Your task to perform on an android device: Go to Yahoo.com Image 0: 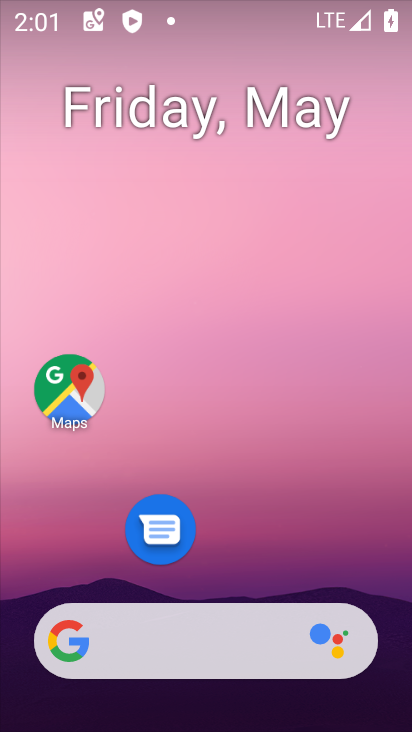
Step 0: click (210, 341)
Your task to perform on an android device: Go to Yahoo.com Image 1: 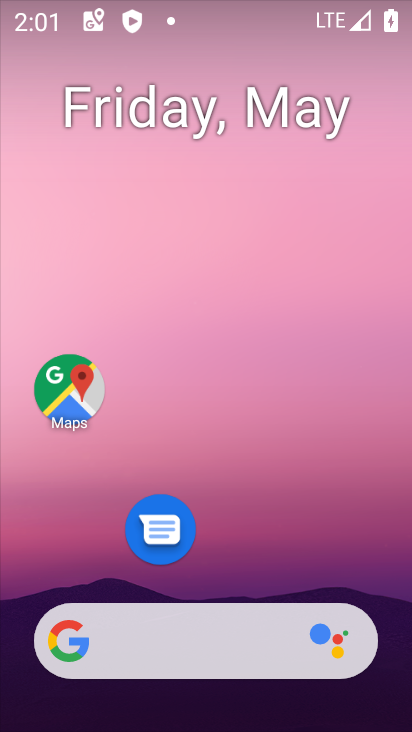
Step 1: drag from (225, 560) to (214, 249)
Your task to perform on an android device: Go to Yahoo.com Image 2: 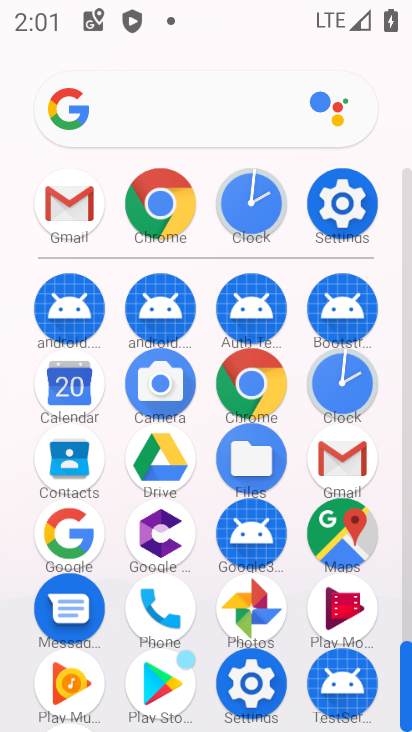
Step 2: drag from (212, 676) to (203, 394)
Your task to perform on an android device: Go to Yahoo.com Image 3: 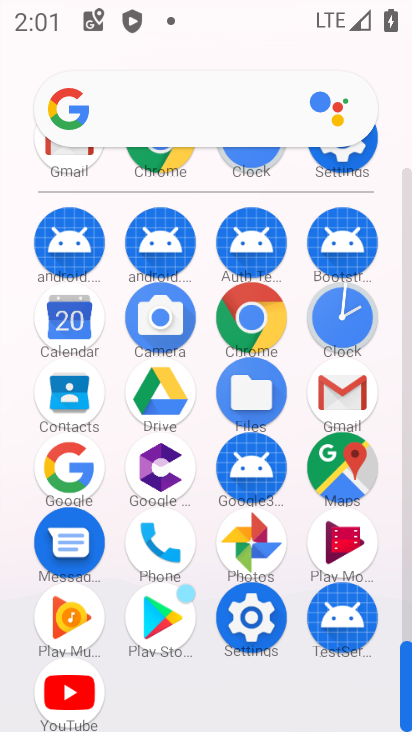
Step 3: click (167, 114)
Your task to perform on an android device: Go to Yahoo.com Image 4: 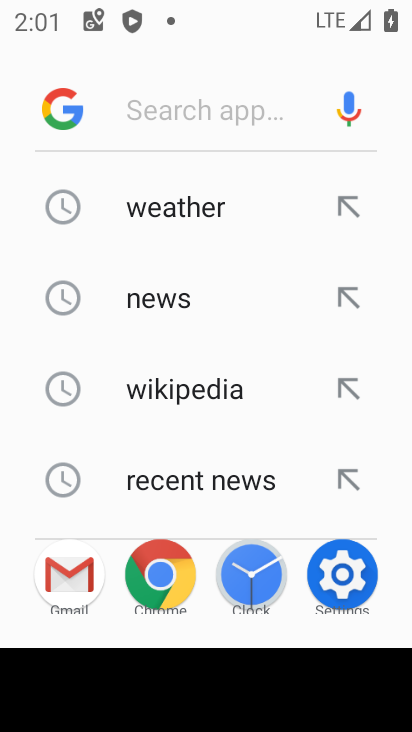
Step 4: type "yahoo"
Your task to perform on an android device: Go to Yahoo.com Image 5: 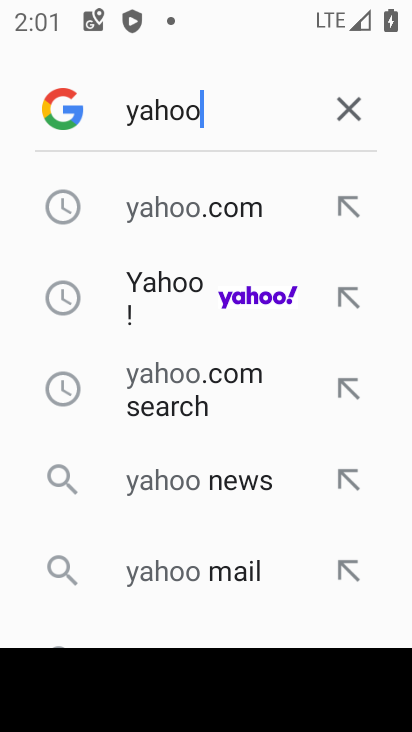
Step 5: click (194, 184)
Your task to perform on an android device: Go to Yahoo.com Image 6: 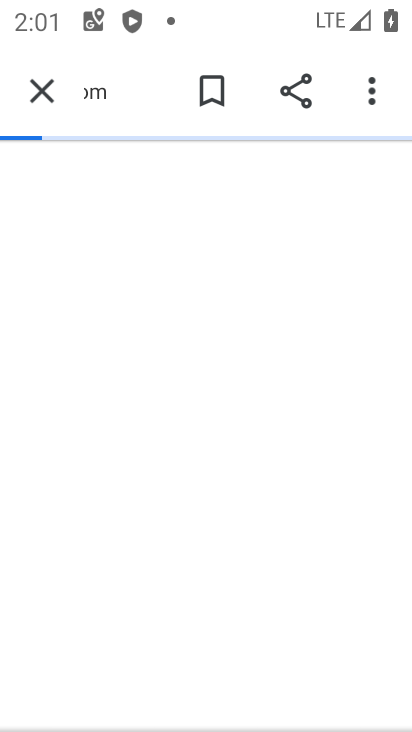
Step 6: task complete